Your task to perform on an android device: set the timer Image 0: 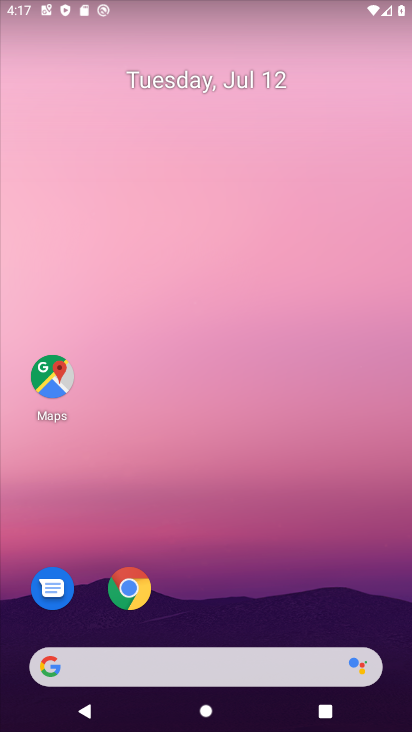
Step 0: click (177, 136)
Your task to perform on an android device: set the timer Image 1: 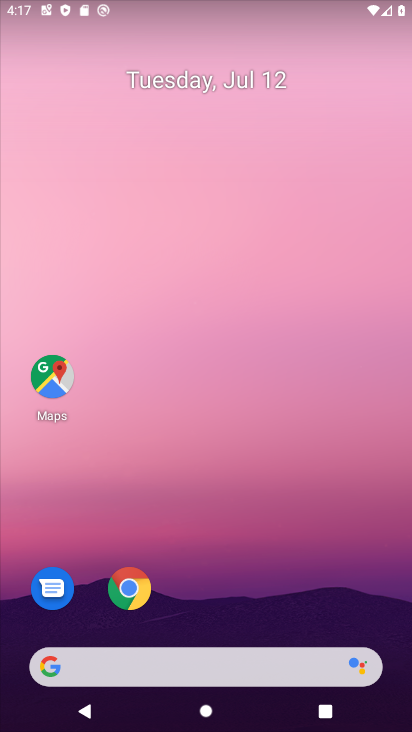
Step 1: drag from (219, 605) to (217, 189)
Your task to perform on an android device: set the timer Image 2: 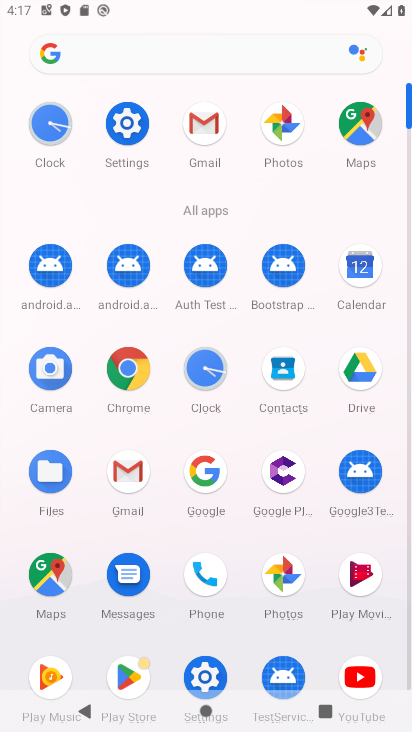
Step 2: click (195, 374)
Your task to perform on an android device: set the timer Image 3: 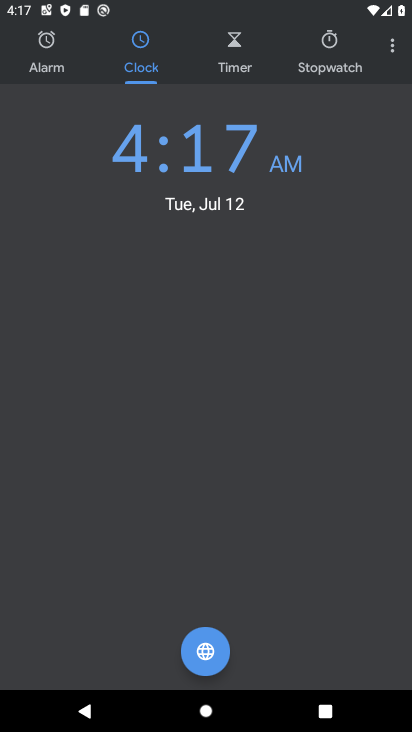
Step 3: click (252, 61)
Your task to perform on an android device: set the timer Image 4: 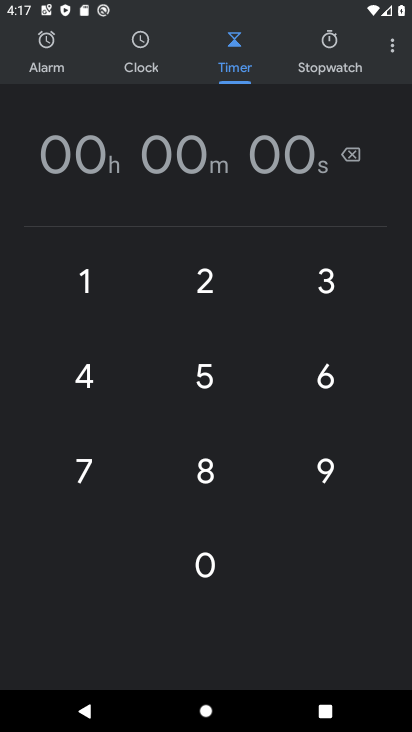
Step 4: click (299, 151)
Your task to perform on an android device: set the timer Image 5: 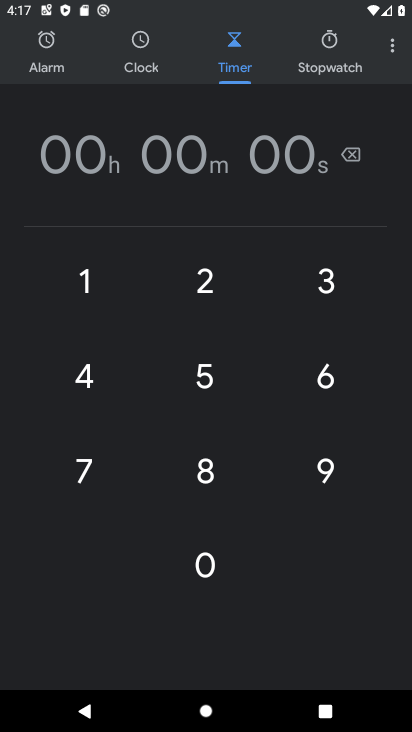
Step 5: type "11"
Your task to perform on an android device: set the timer Image 6: 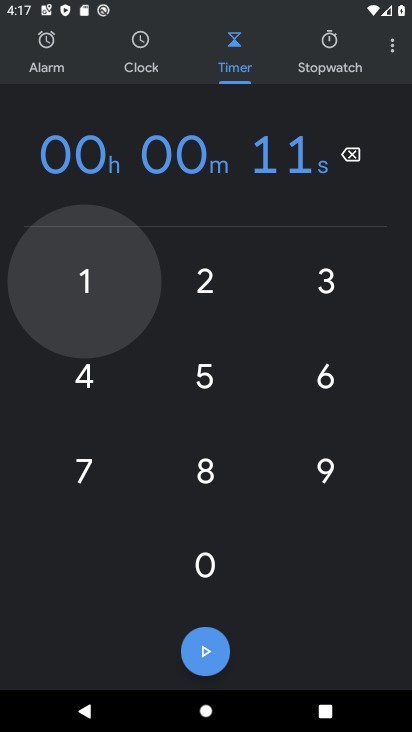
Step 6: click (203, 673)
Your task to perform on an android device: set the timer Image 7: 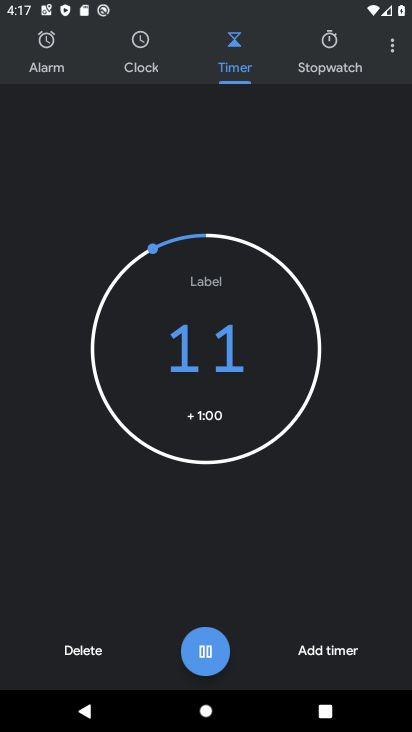
Step 7: task complete